Your task to perform on an android device: Do I have any events this weekend? Image 0: 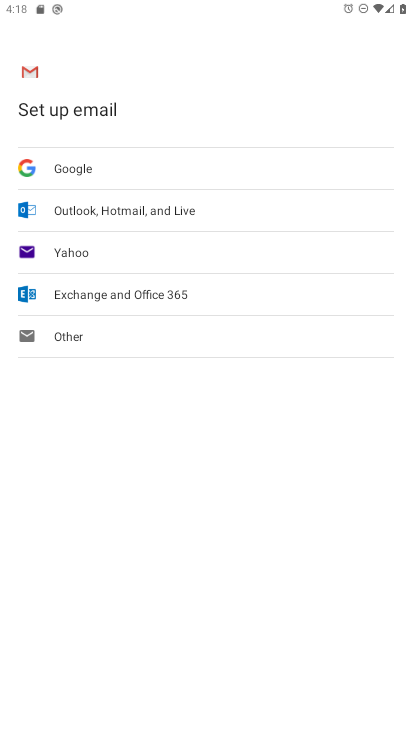
Step 0: press home button
Your task to perform on an android device: Do I have any events this weekend? Image 1: 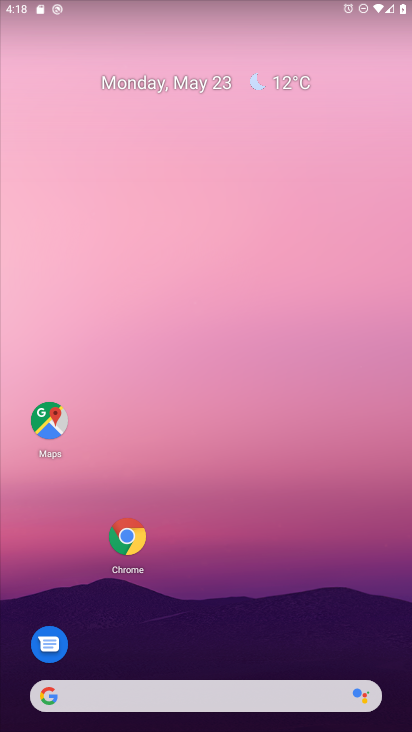
Step 1: drag from (194, 594) to (226, 207)
Your task to perform on an android device: Do I have any events this weekend? Image 2: 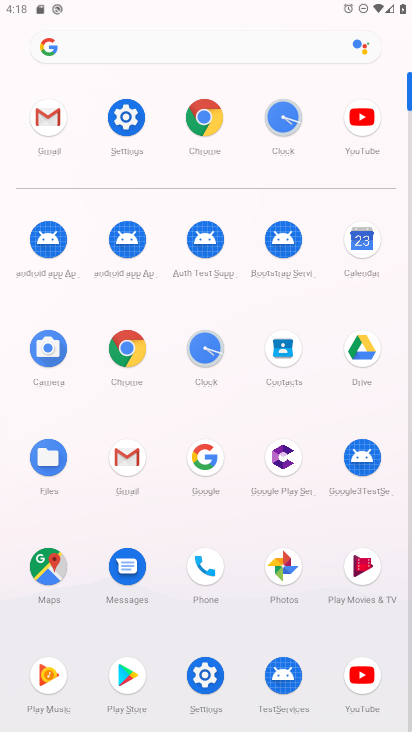
Step 2: click (367, 234)
Your task to perform on an android device: Do I have any events this weekend? Image 3: 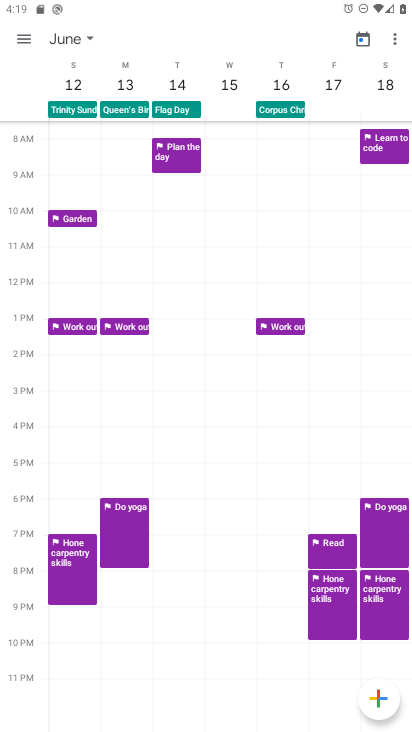
Step 3: click (81, 40)
Your task to perform on an android device: Do I have any events this weekend? Image 4: 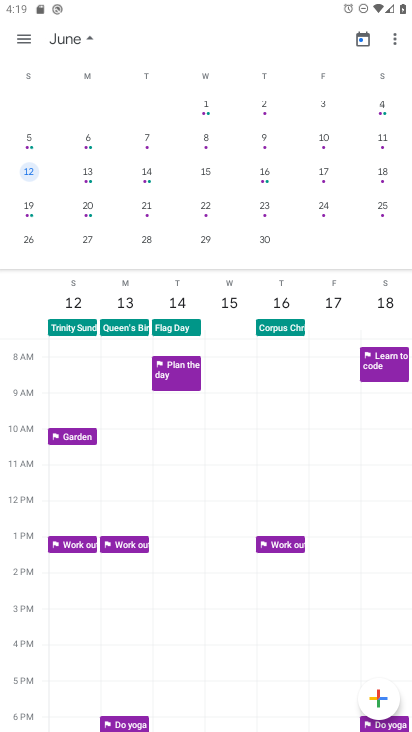
Step 4: drag from (39, 186) to (348, 189)
Your task to perform on an android device: Do I have any events this weekend? Image 5: 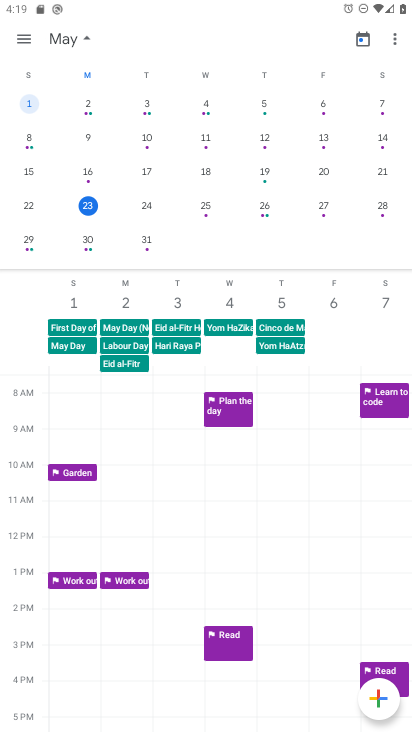
Step 5: click (80, 199)
Your task to perform on an android device: Do I have any events this weekend? Image 6: 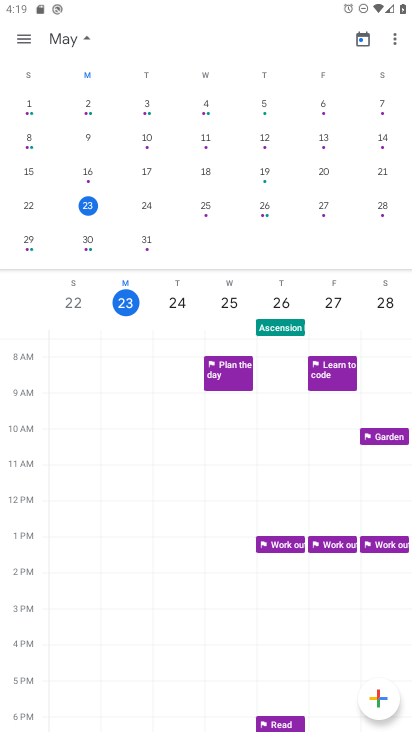
Step 6: click (375, 211)
Your task to perform on an android device: Do I have any events this weekend? Image 7: 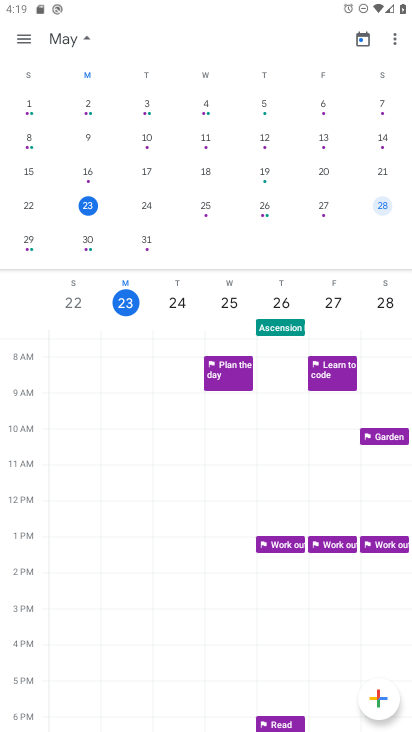
Step 7: click (374, 208)
Your task to perform on an android device: Do I have any events this weekend? Image 8: 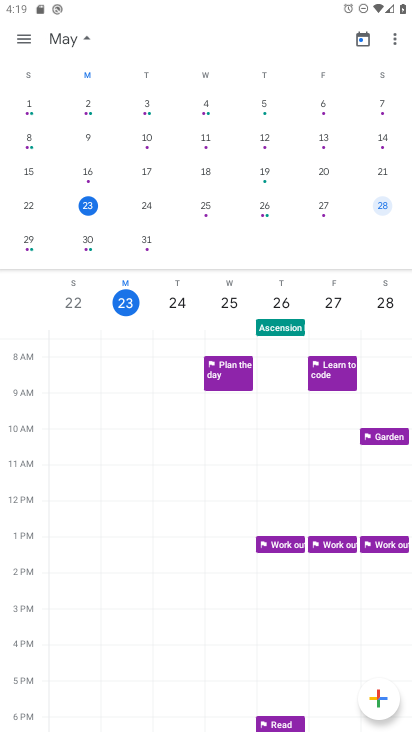
Step 8: drag from (329, 318) to (81, 286)
Your task to perform on an android device: Do I have any events this weekend? Image 9: 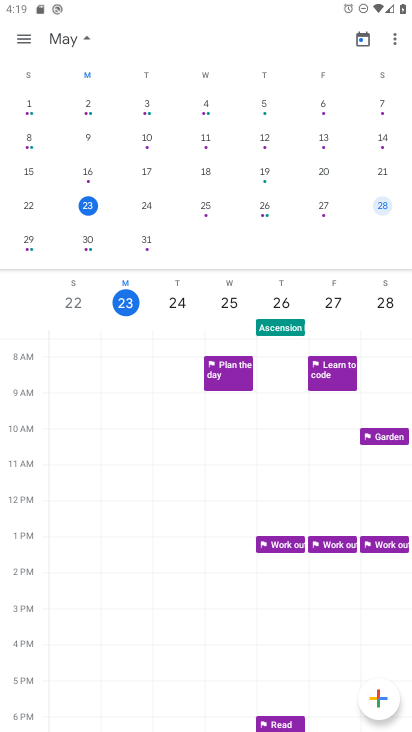
Step 9: drag from (302, 303) to (80, 289)
Your task to perform on an android device: Do I have any events this weekend? Image 10: 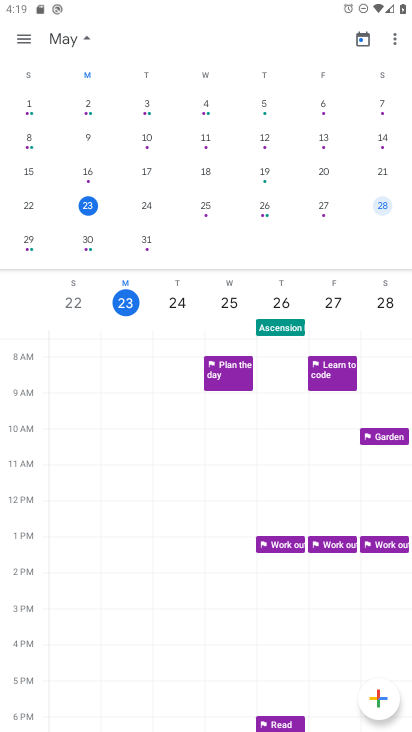
Step 10: drag from (338, 304) to (128, 299)
Your task to perform on an android device: Do I have any events this weekend? Image 11: 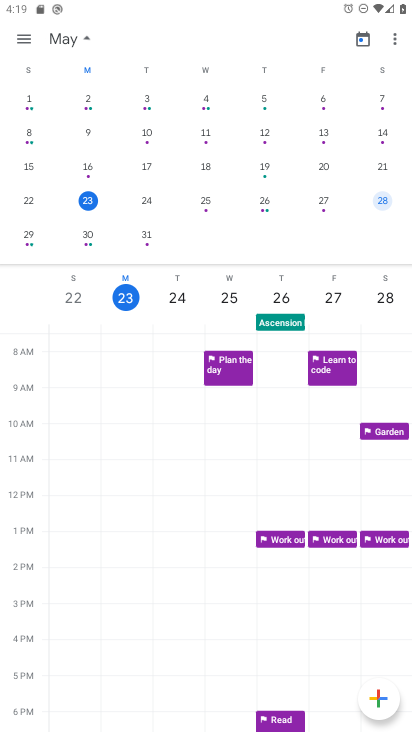
Step 11: click (381, 291)
Your task to perform on an android device: Do I have any events this weekend? Image 12: 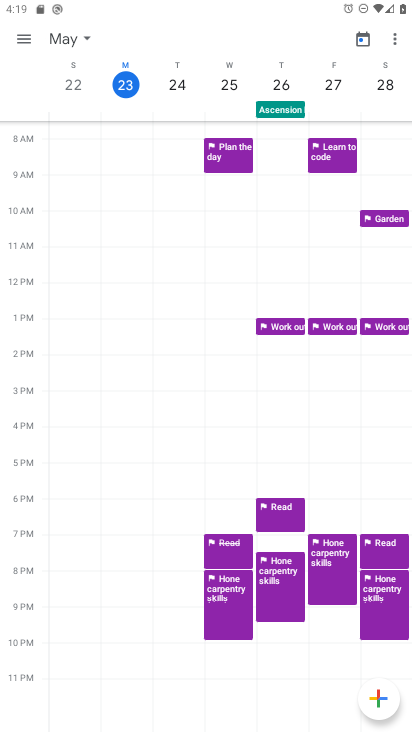
Step 12: task complete